Your task to perform on an android device: open a bookmark in the chrome app Image 0: 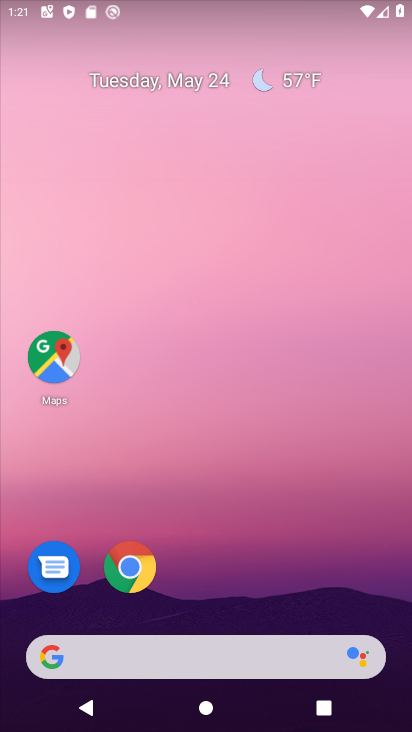
Step 0: click (138, 569)
Your task to perform on an android device: open a bookmark in the chrome app Image 1: 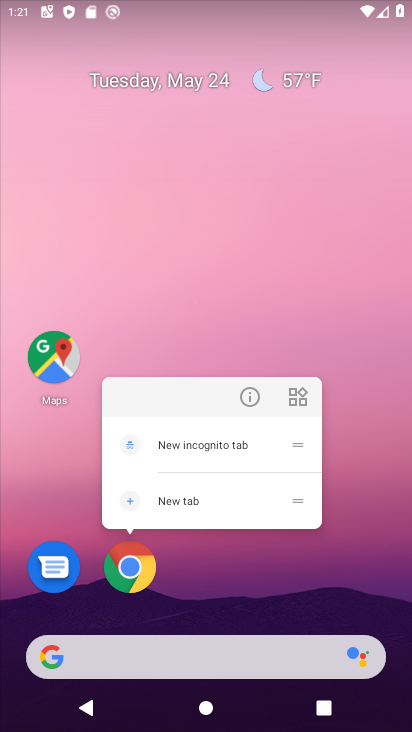
Step 1: click (131, 592)
Your task to perform on an android device: open a bookmark in the chrome app Image 2: 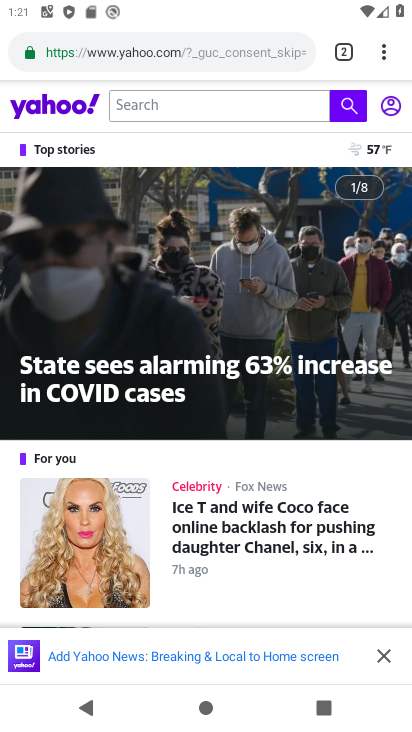
Step 2: task complete